Your task to perform on an android device: find which apps use the phone's location Image 0: 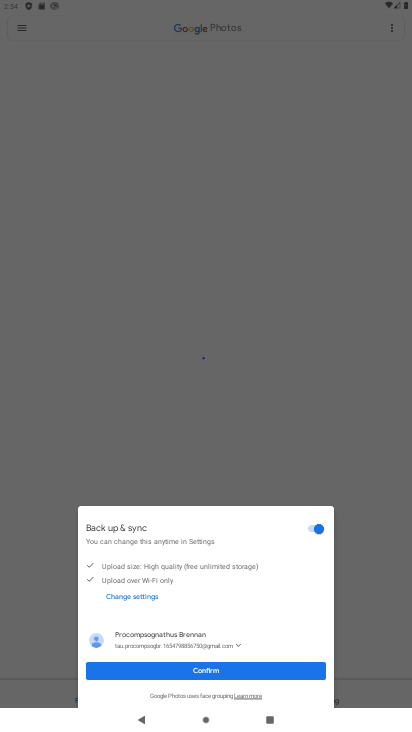
Step 0: press home button
Your task to perform on an android device: find which apps use the phone's location Image 1: 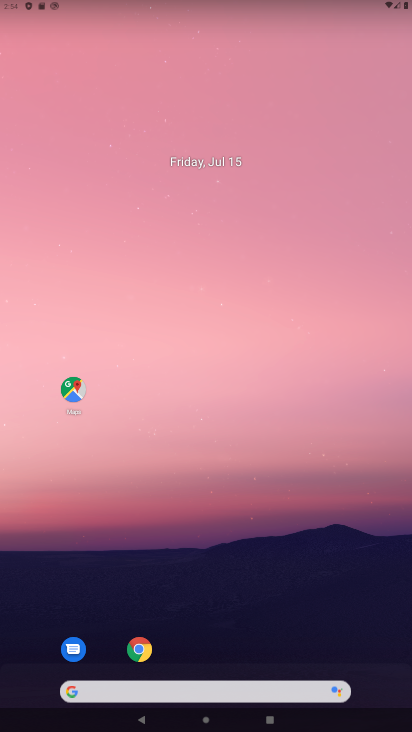
Step 1: drag from (322, 602) to (247, 130)
Your task to perform on an android device: find which apps use the phone's location Image 2: 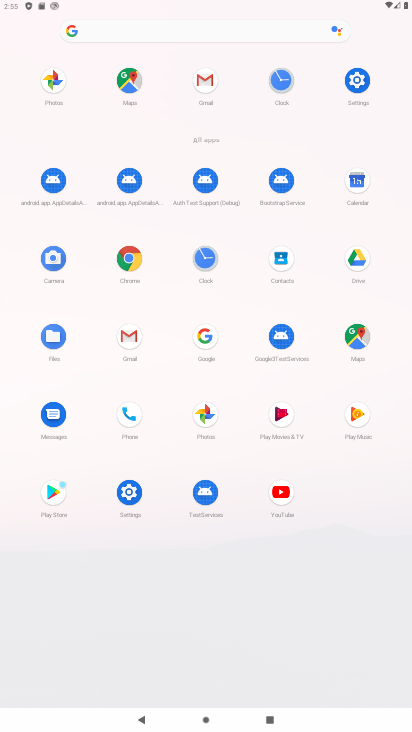
Step 2: click (364, 80)
Your task to perform on an android device: find which apps use the phone's location Image 3: 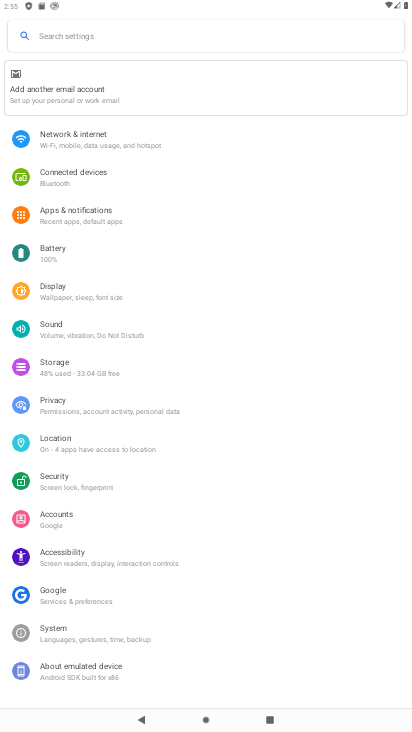
Step 3: click (84, 213)
Your task to perform on an android device: find which apps use the phone's location Image 4: 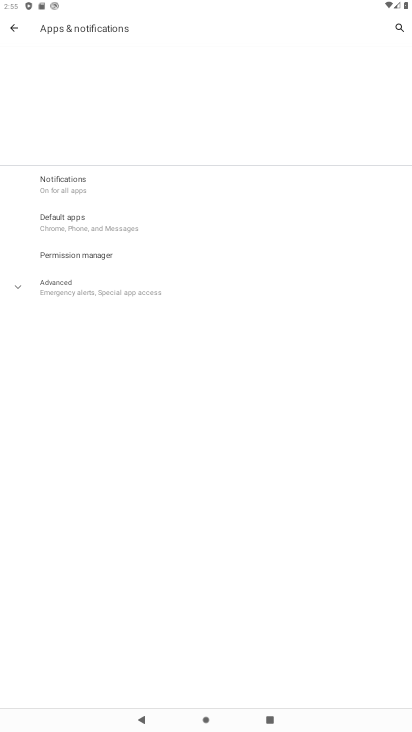
Step 4: click (15, 27)
Your task to perform on an android device: find which apps use the phone's location Image 5: 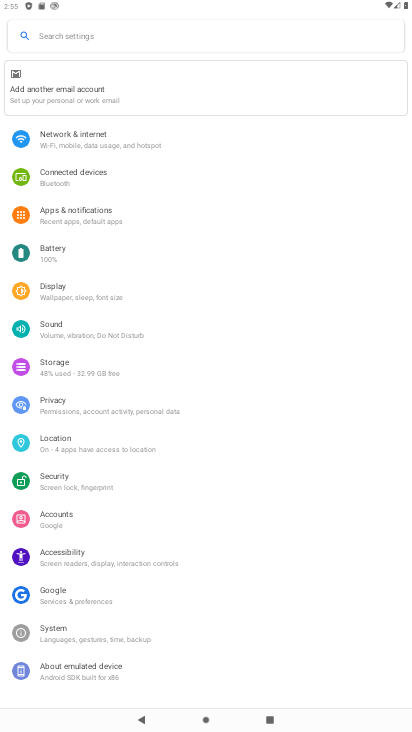
Step 5: click (79, 447)
Your task to perform on an android device: find which apps use the phone's location Image 6: 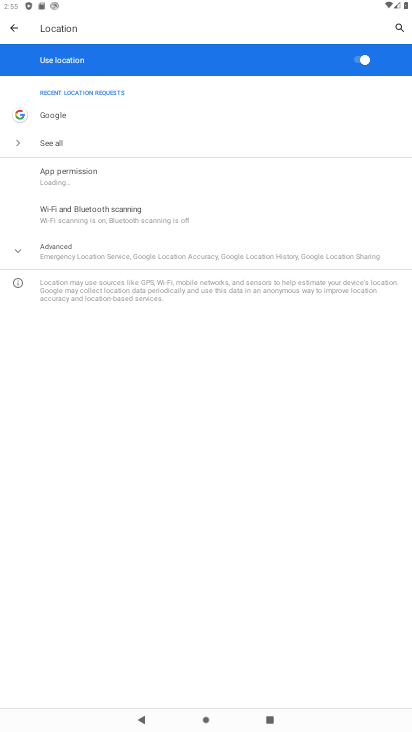
Step 6: click (76, 261)
Your task to perform on an android device: find which apps use the phone's location Image 7: 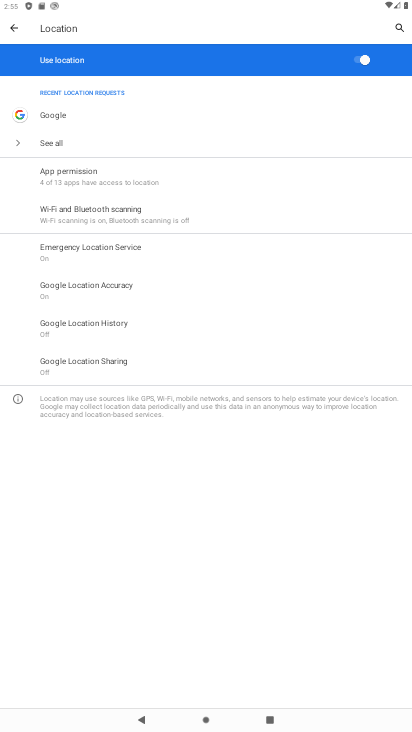
Step 7: click (91, 180)
Your task to perform on an android device: find which apps use the phone's location Image 8: 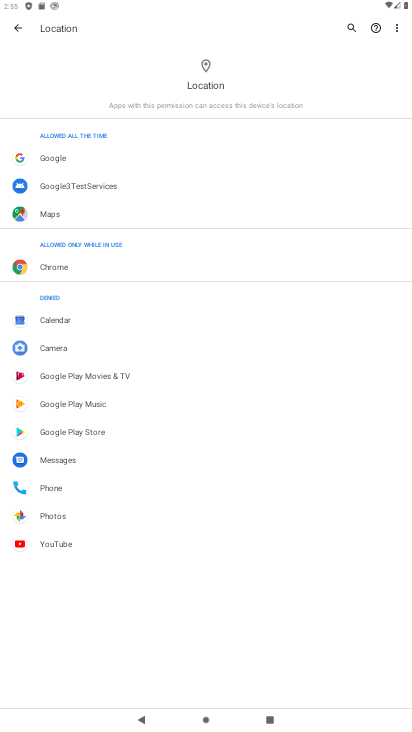
Step 8: task complete